Your task to perform on an android device: manage bookmarks in the chrome app Image 0: 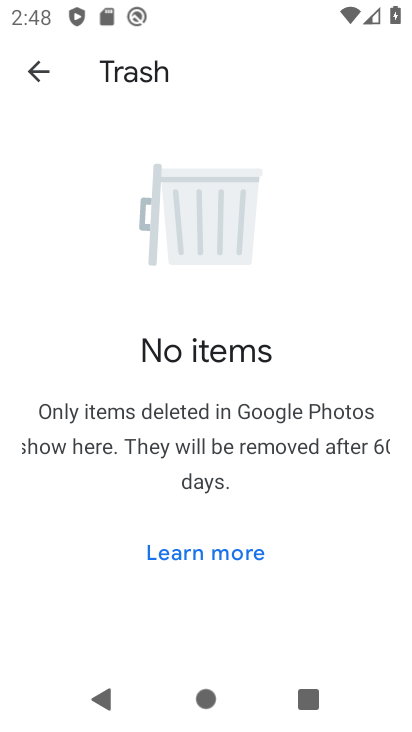
Step 0: click (207, 698)
Your task to perform on an android device: manage bookmarks in the chrome app Image 1: 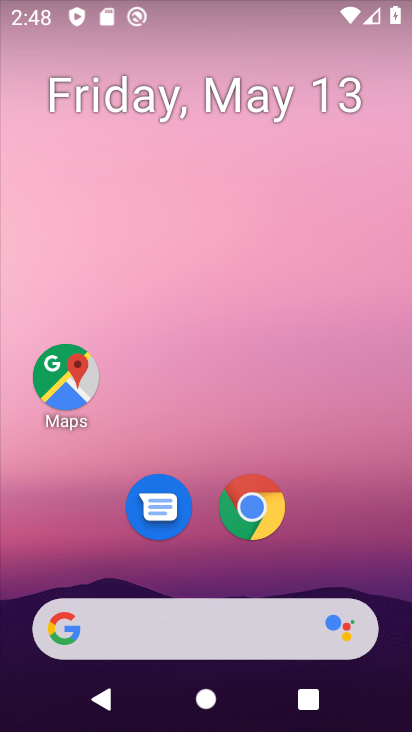
Step 1: drag from (302, 549) to (254, 27)
Your task to perform on an android device: manage bookmarks in the chrome app Image 2: 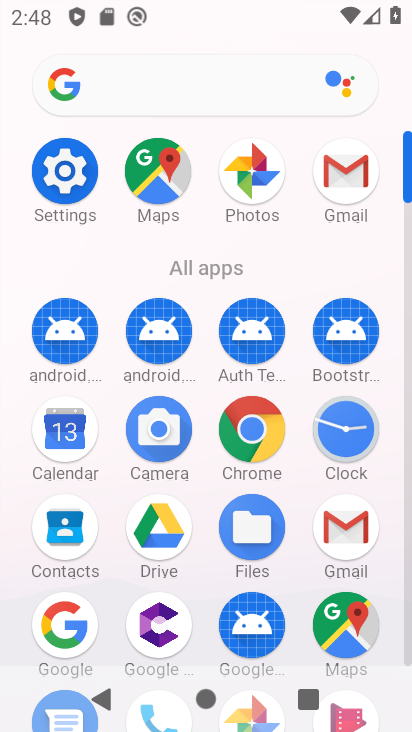
Step 2: click (246, 430)
Your task to perform on an android device: manage bookmarks in the chrome app Image 3: 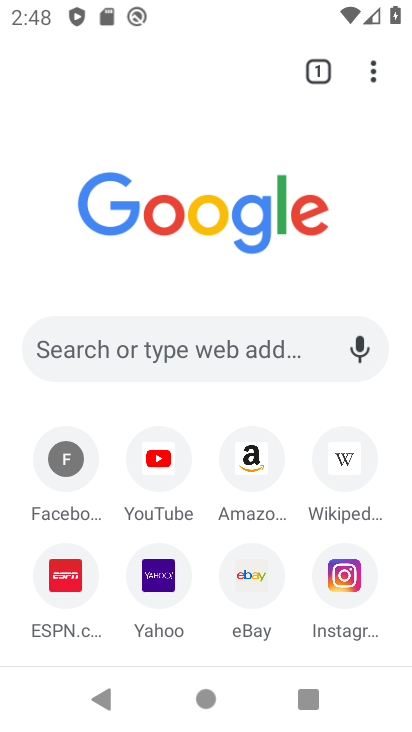
Step 3: click (371, 77)
Your task to perform on an android device: manage bookmarks in the chrome app Image 4: 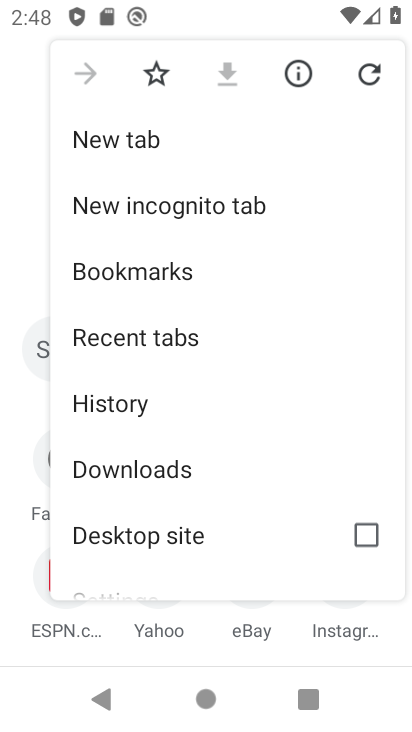
Step 4: click (148, 266)
Your task to perform on an android device: manage bookmarks in the chrome app Image 5: 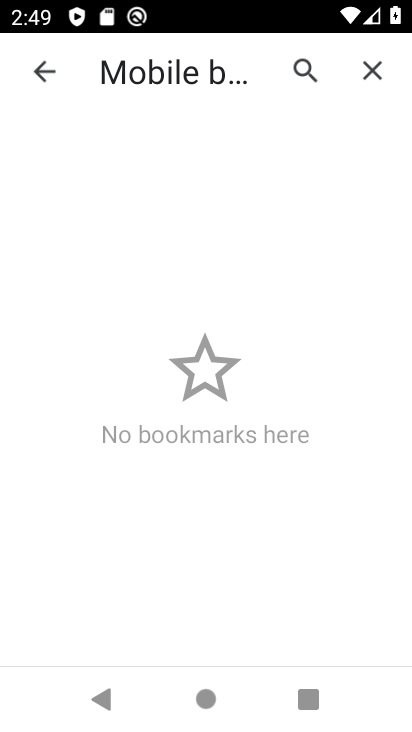
Step 5: task complete